Your task to perform on an android device: Open Youtube and go to the subscriptions tab Image 0: 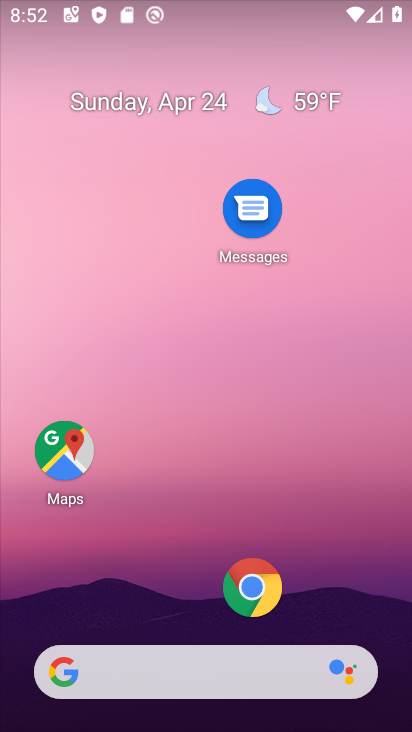
Step 0: drag from (150, 609) to (188, 52)
Your task to perform on an android device: Open Youtube and go to the subscriptions tab Image 1: 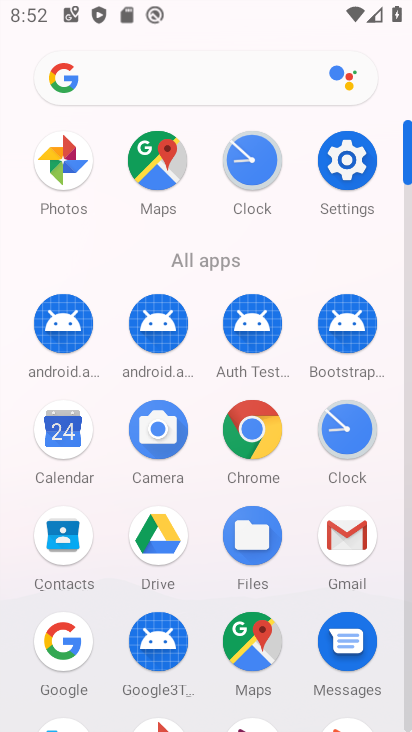
Step 1: drag from (210, 564) to (231, 103)
Your task to perform on an android device: Open Youtube and go to the subscriptions tab Image 2: 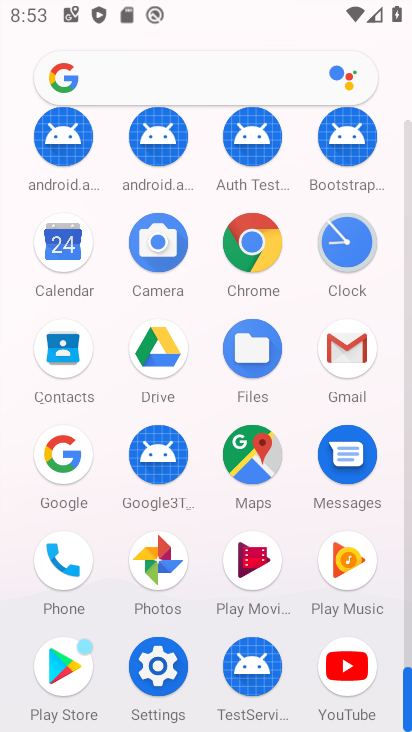
Step 2: click (348, 678)
Your task to perform on an android device: Open Youtube and go to the subscriptions tab Image 3: 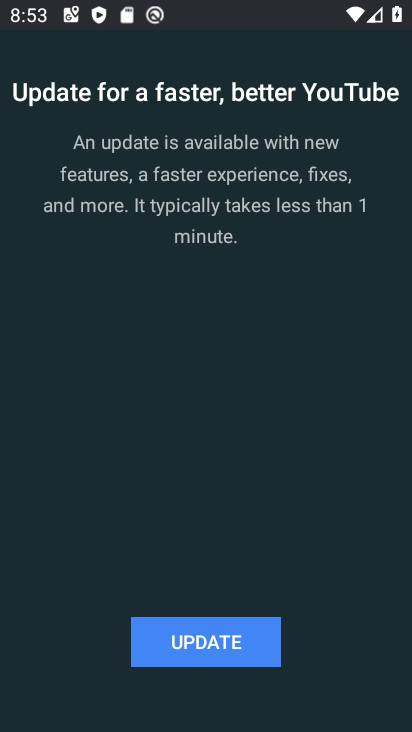
Step 3: click (214, 645)
Your task to perform on an android device: Open Youtube and go to the subscriptions tab Image 4: 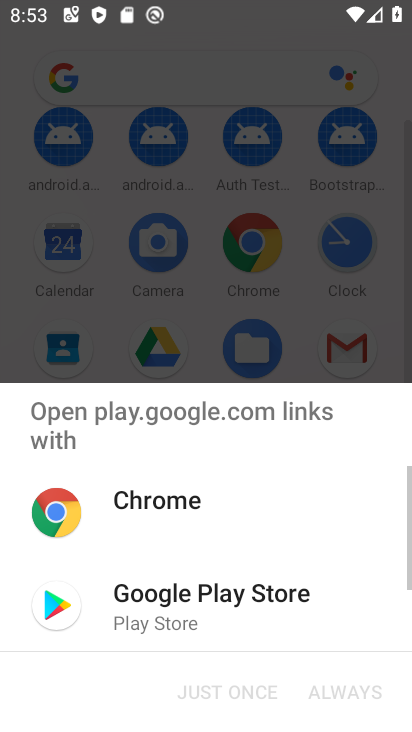
Step 4: click (153, 599)
Your task to perform on an android device: Open Youtube and go to the subscriptions tab Image 5: 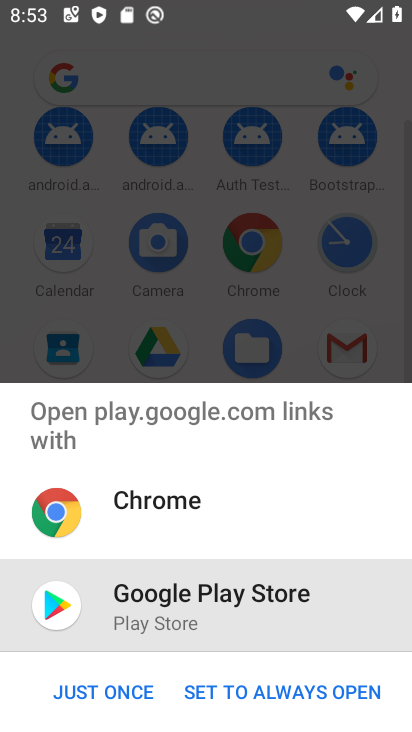
Step 5: click (94, 697)
Your task to perform on an android device: Open Youtube and go to the subscriptions tab Image 6: 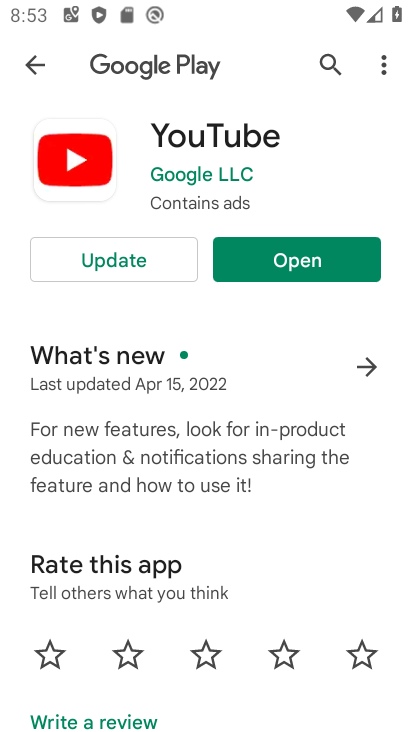
Step 6: click (143, 255)
Your task to perform on an android device: Open Youtube and go to the subscriptions tab Image 7: 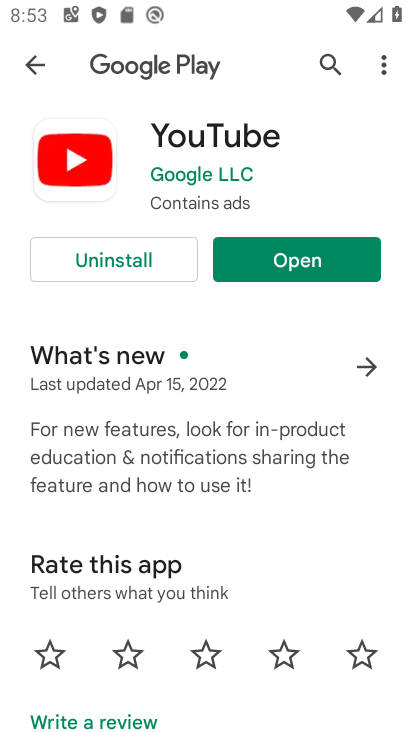
Step 7: click (251, 270)
Your task to perform on an android device: Open Youtube and go to the subscriptions tab Image 8: 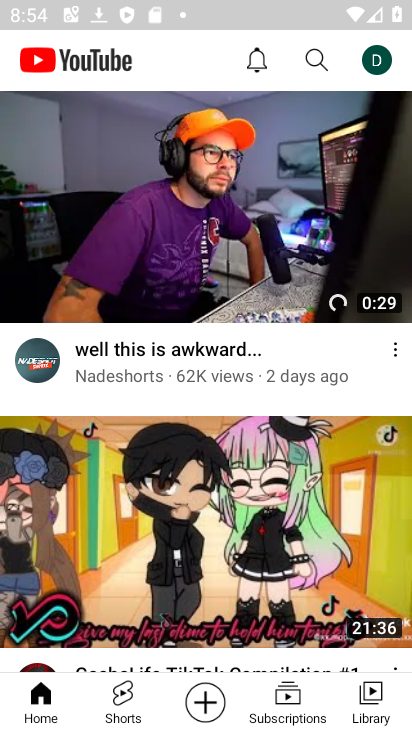
Step 8: click (304, 719)
Your task to perform on an android device: Open Youtube and go to the subscriptions tab Image 9: 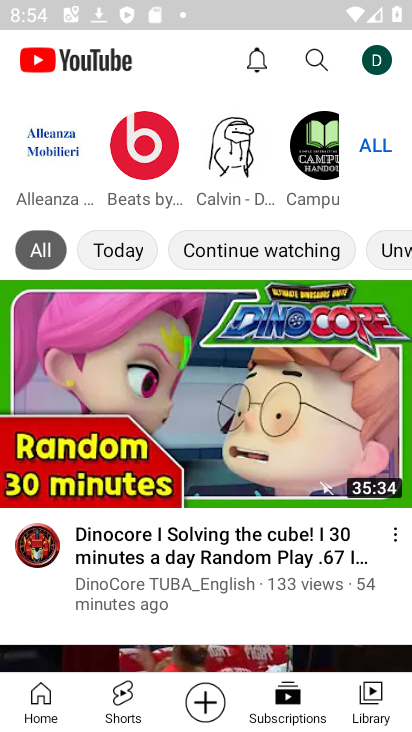
Step 9: task complete